Your task to perform on an android device: turn on improve location accuracy Image 0: 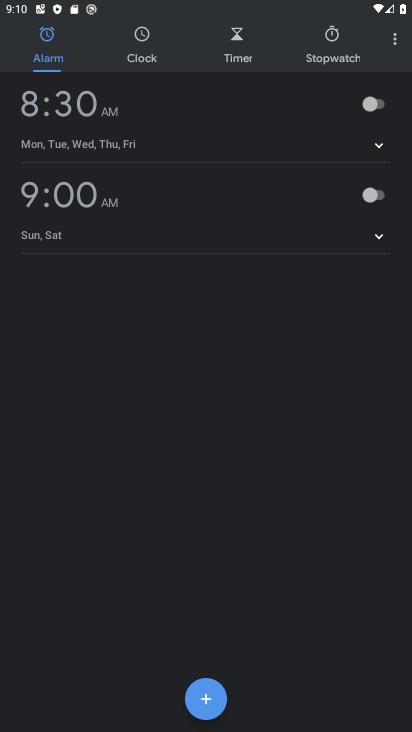
Step 0: press home button
Your task to perform on an android device: turn on improve location accuracy Image 1: 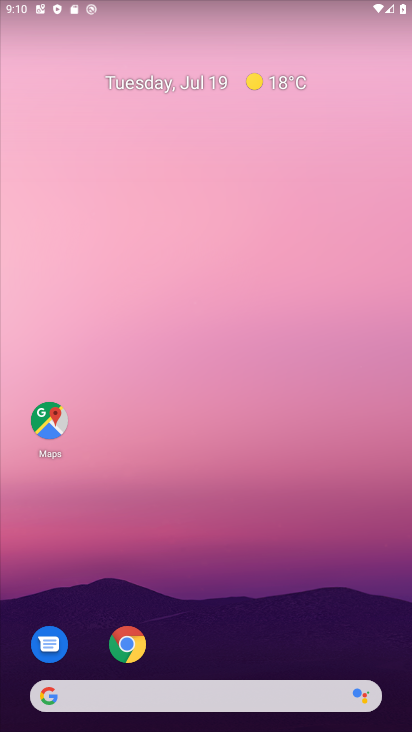
Step 1: drag from (211, 709) to (167, 172)
Your task to perform on an android device: turn on improve location accuracy Image 2: 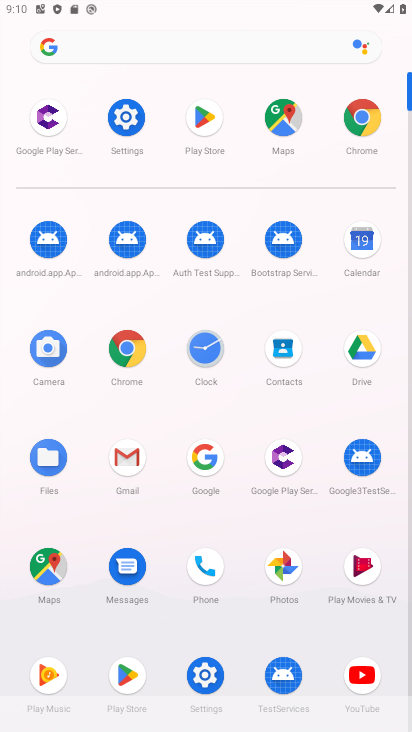
Step 2: click (127, 120)
Your task to perform on an android device: turn on improve location accuracy Image 3: 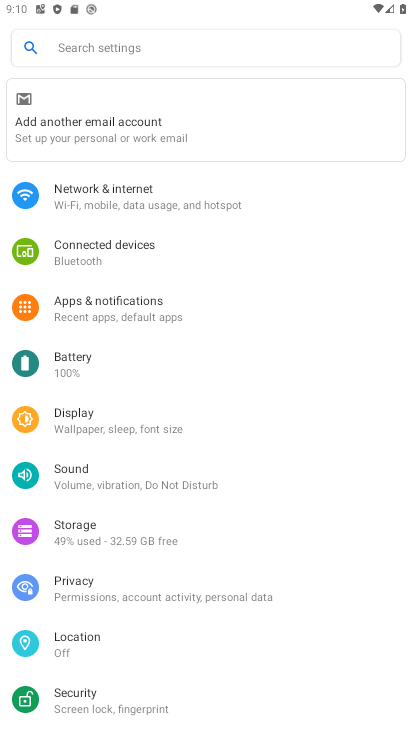
Step 3: click (87, 635)
Your task to perform on an android device: turn on improve location accuracy Image 4: 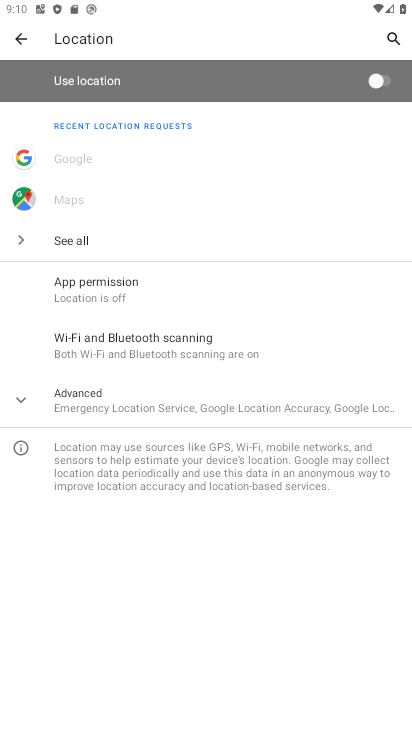
Step 4: click (99, 405)
Your task to perform on an android device: turn on improve location accuracy Image 5: 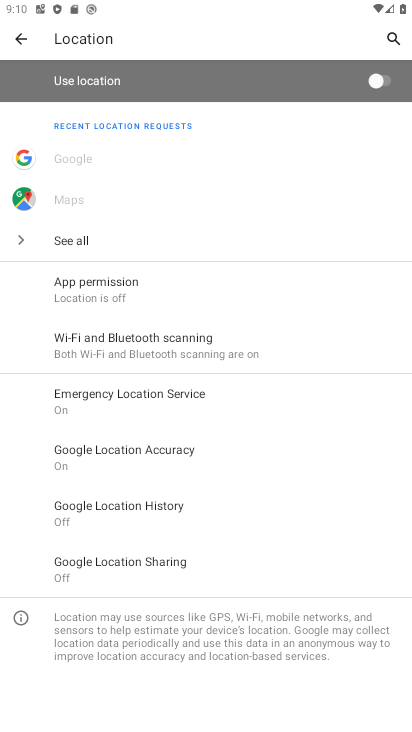
Step 5: click (129, 450)
Your task to perform on an android device: turn on improve location accuracy Image 6: 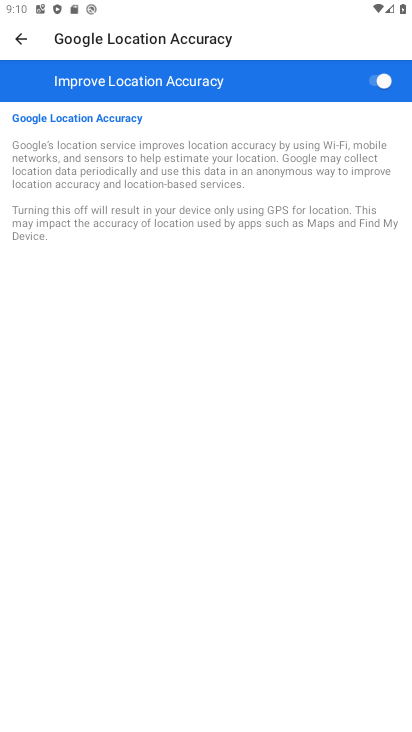
Step 6: task complete